Your task to perform on an android device: toggle show notifications on the lock screen Image 0: 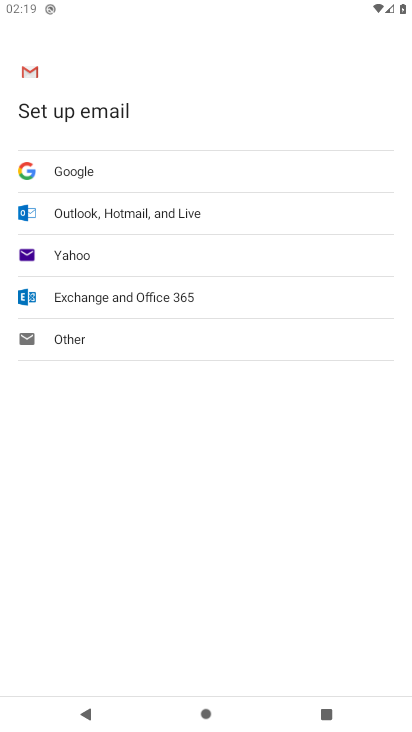
Step 0: press home button
Your task to perform on an android device: toggle show notifications on the lock screen Image 1: 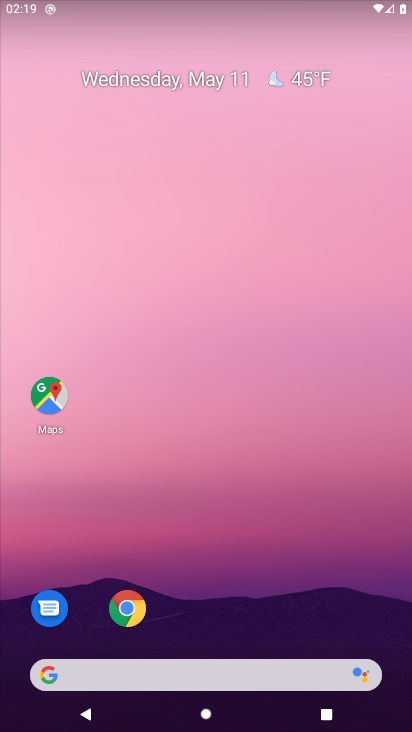
Step 1: drag from (216, 650) to (225, 129)
Your task to perform on an android device: toggle show notifications on the lock screen Image 2: 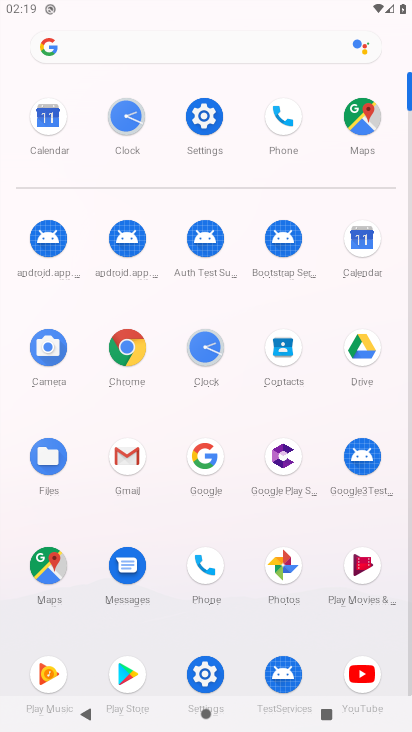
Step 2: click (201, 114)
Your task to perform on an android device: toggle show notifications on the lock screen Image 3: 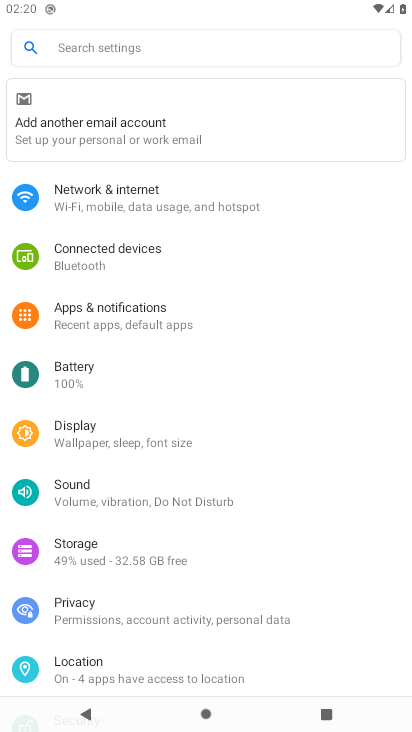
Step 3: click (162, 310)
Your task to perform on an android device: toggle show notifications on the lock screen Image 4: 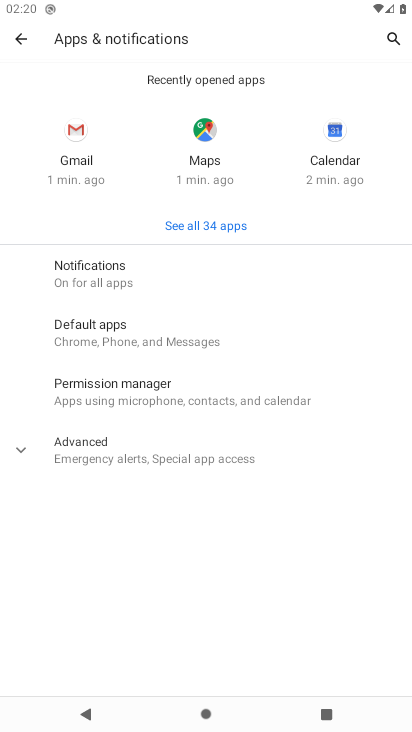
Step 4: click (141, 275)
Your task to perform on an android device: toggle show notifications on the lock screen Image 5: 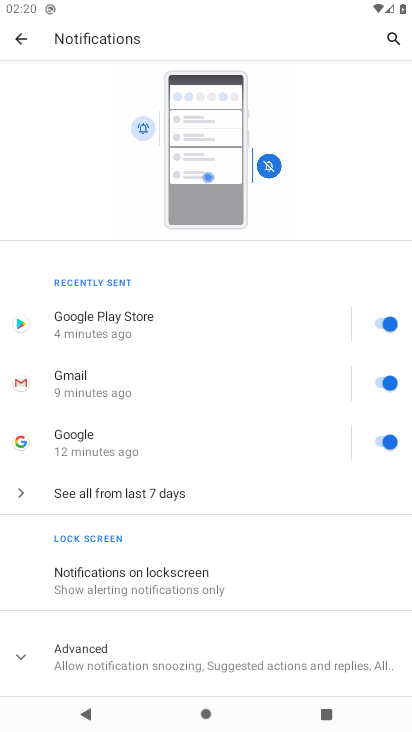
Step 5: click (230, 588)
Your task to perform on an android device: toggle show notifications on the lock screen Image 6: 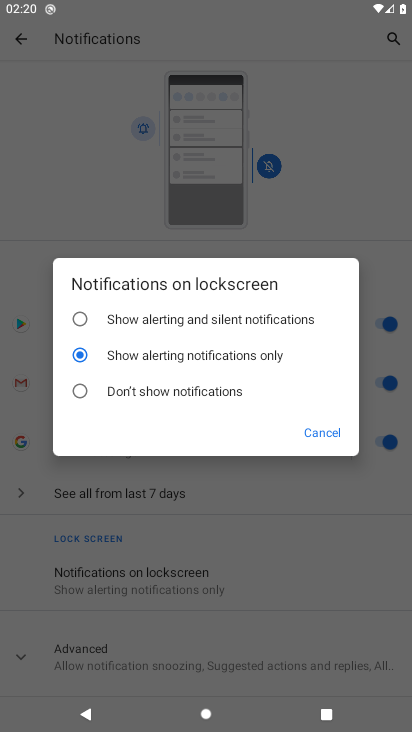
Step 6: click (106, 315)
Your task to perform on an android device: toggle show notifications on the lock screen Image 7: 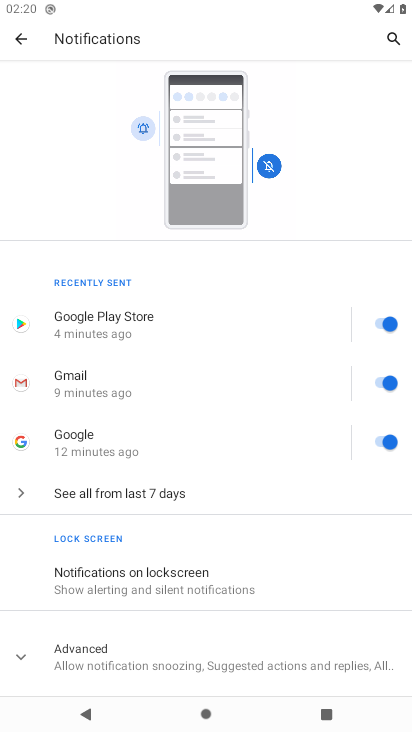
Step 7: task complete